Your task to perform on an android device: change keyboard looks Image 0: 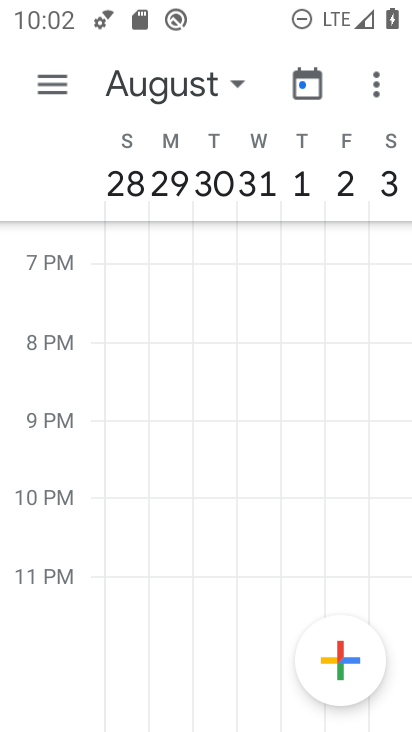
Step 0: press home button
Your task to perform on an android device: change keyboard looks Image 1: 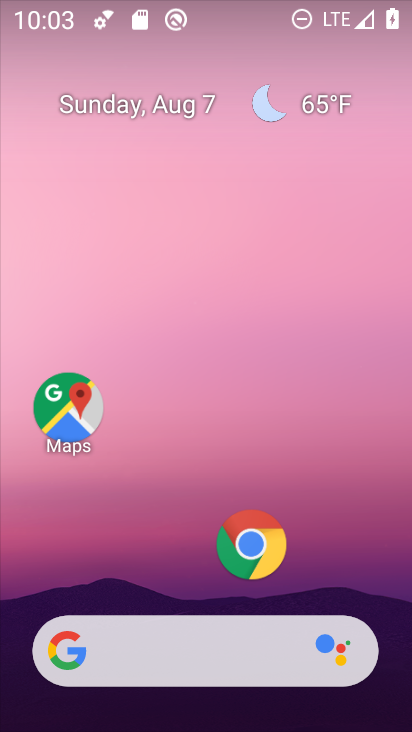
Step 1: drag from (201, 602) to (383, 453)
Your task to perform on an android device: change keyboard looks Image 2: 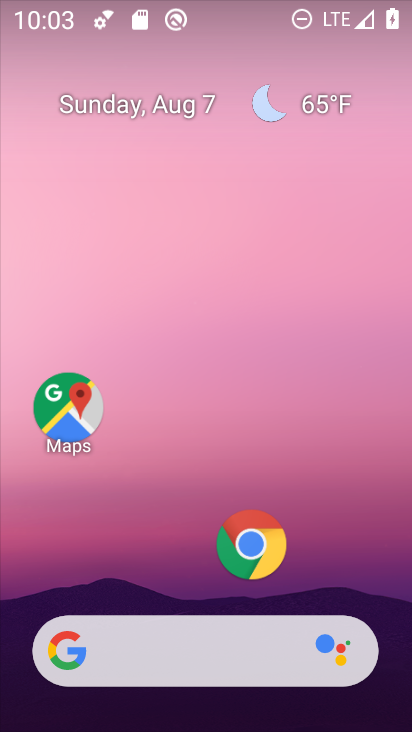
Step 2: drag from (189, 618) to (261, 11)
Your task to perform on an android device: change keyboard looks Image 3: 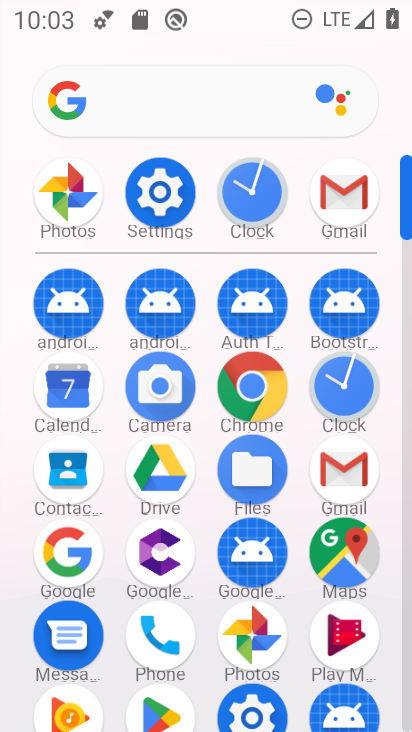
Step 3: click (157, 170)
Your task to perform on an android device: change keyboard looks Image 4: 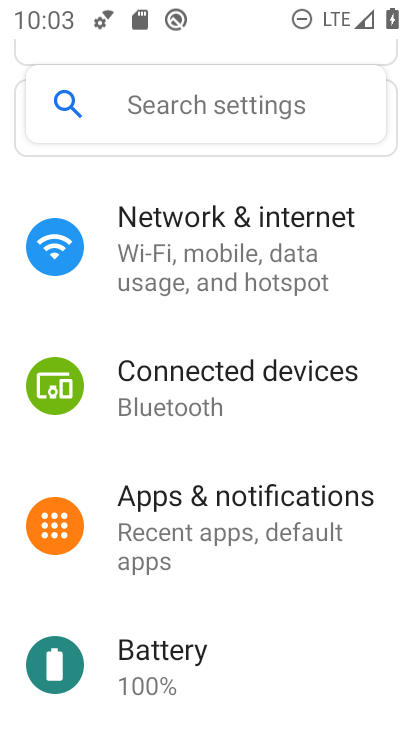
Step 4: drag from (263, 594) to (251, 28)
Your task to perform on an android device: change keyboard looks Image 5: 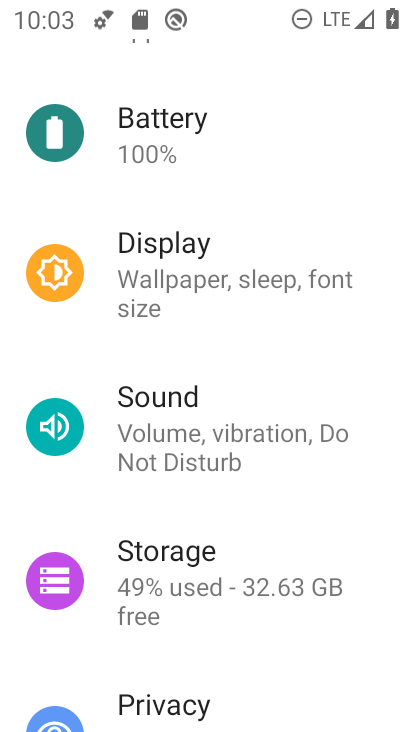
Step 5: drag from (241, 674) to (241, 35)
Your task to perform on an android device: change keyboard looks Image 6: 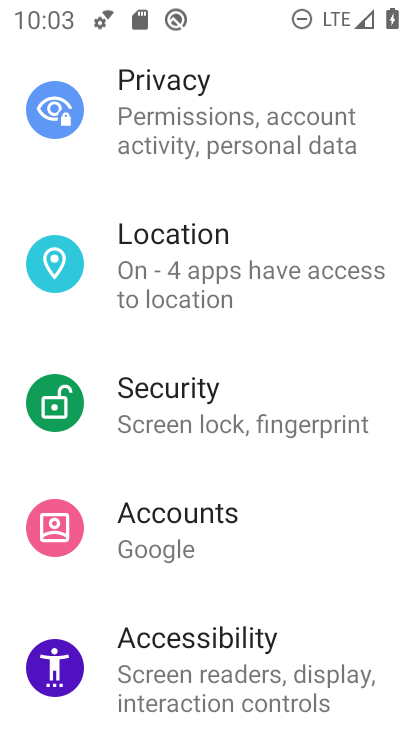
Step 6: drag from (185, 595) to (127, 32)
Your task to perform on an android device: change keyboard looks Image 7: 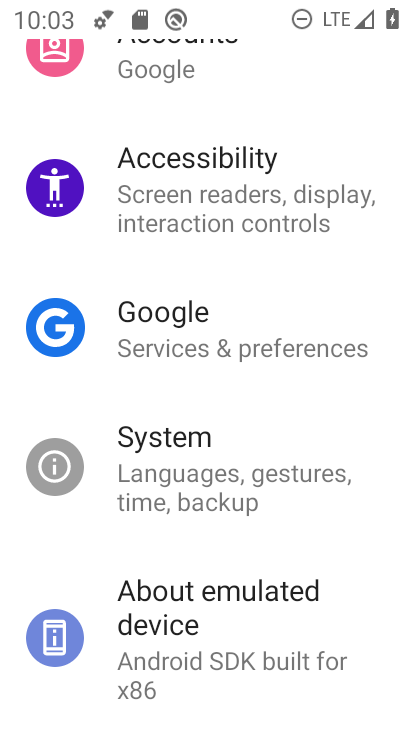
Step 7: click (291, 457)
Your task to perform on an android device: change keyboard looks Image 8: 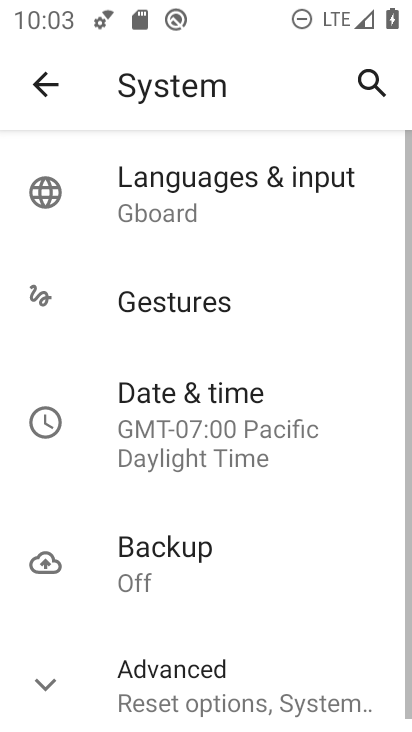
Step 8: click (124, 203)
Your task to perform on an android device: change keyboard looks Image 9: 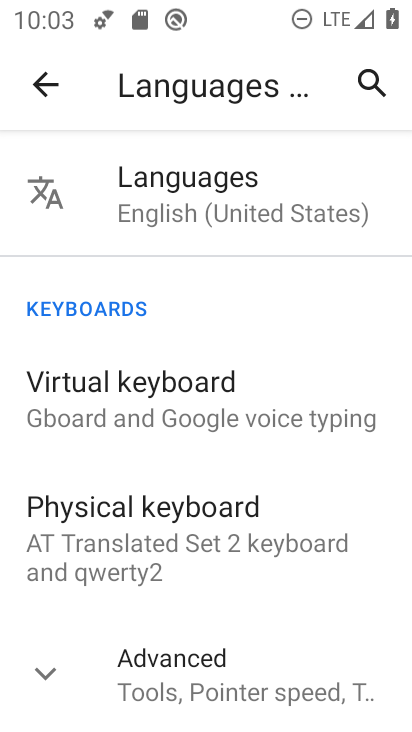
Step 9: click (175, 398)
Your task to perform on an android device: change keyboard looks Image 10: 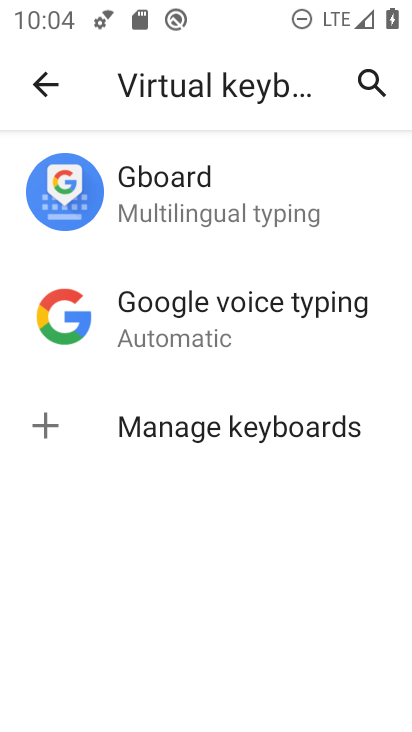
Step 10: click (150, 221)
Your task to perform on an android device: change keyboard looks Image 11: 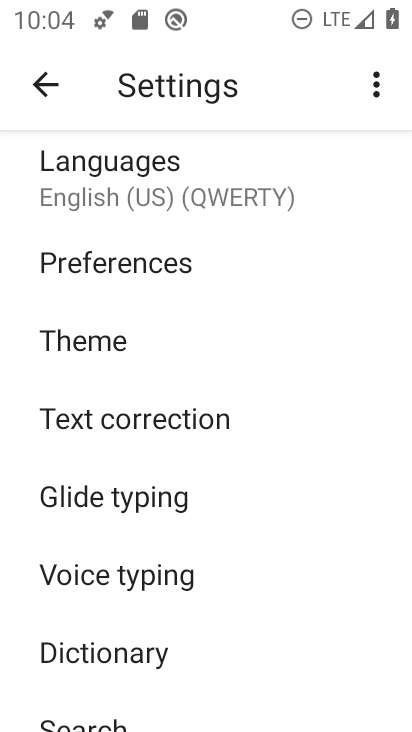
Step 11: click (102, 353)
Your task to perform on an android device: change keyboard looks Image 12: 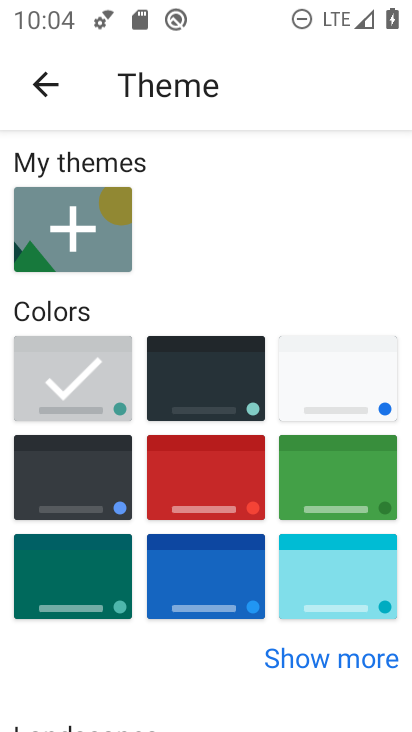
Step 12: click (171, 376)
Your task to perform on an android device: change keyboard looks Image 13: 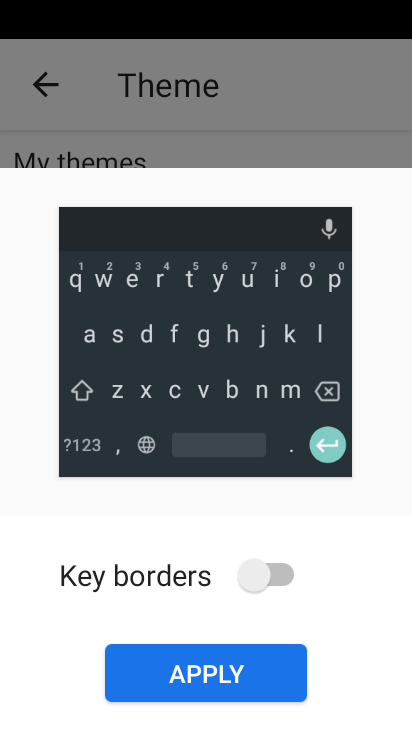
Step 13: click (245, 650)
Your task to perform on an android device: change keyboard looks Image 14: 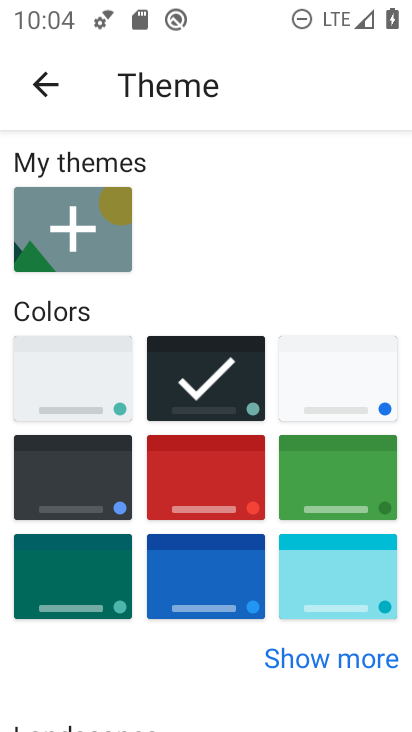
Step 14: task complete